Your task to perform on an android device: see tabs open on other devices in the chrome app Image 0: 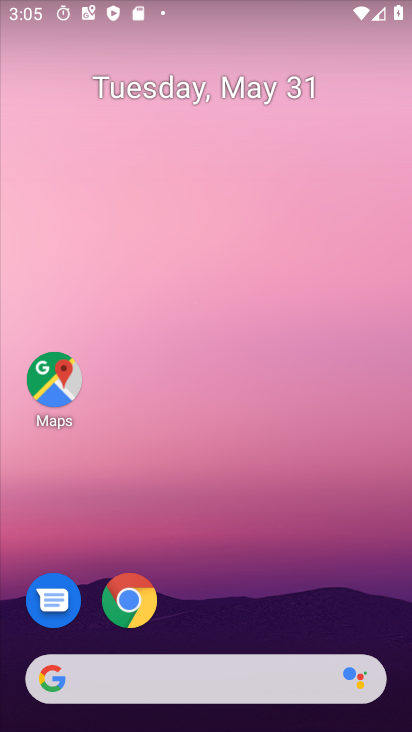
Step 0: press home button
Your task to perform on an android device: see tabs open on other devices in the chrome app Image 1: 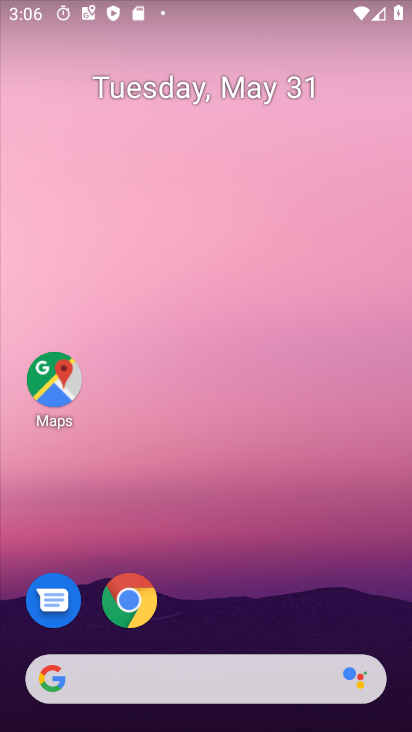
Step 1: click (147, 599)
Your task to perform on an android device: see tabs open on other devices in the chrome app Image 2: 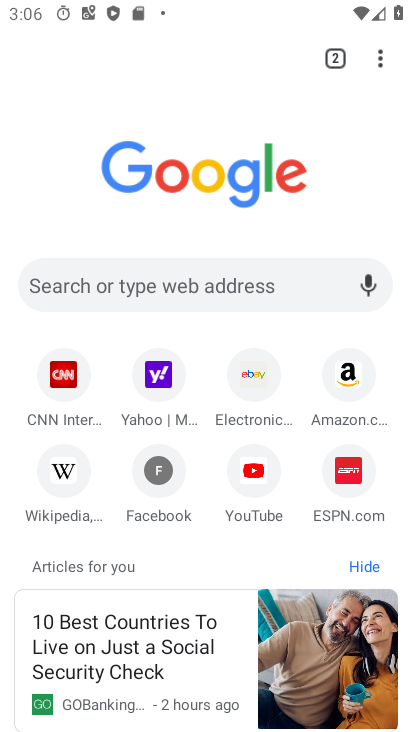
Step 2: click (380, 52)
Your task to perform on an android device: see tabs open on other devices in the chrome app Image 3: 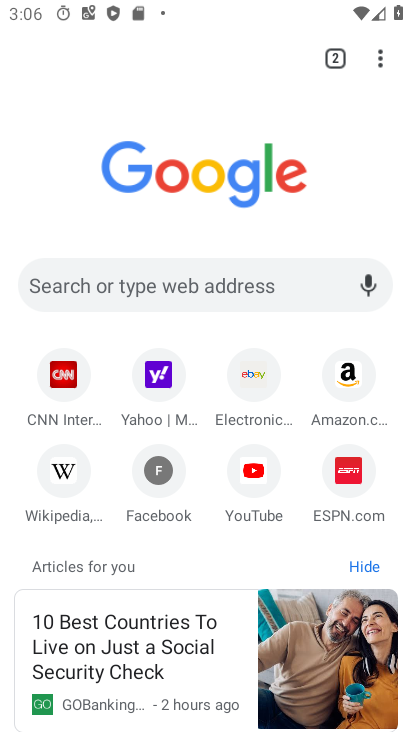
Step 3: click (377, 52)
Your task to perform on an android device: see tabs open on other devices in the chrome app Image 4: 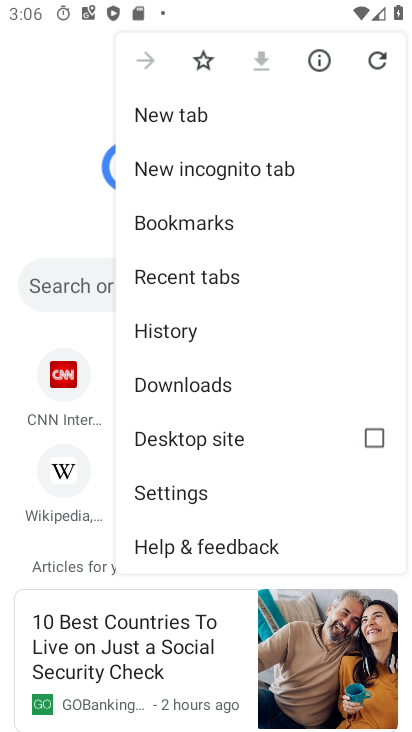
Step 4: click (223, 276)
Your task to perform on an android device: see tabs open on other devices in the chrome app Image 5: 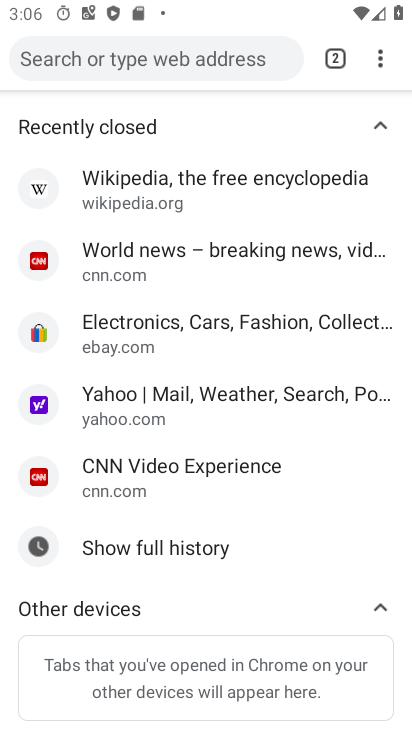
Step 5: task complete